Your task to perform on an android device: Search for vegetarian restaurants on Maps Image 0: 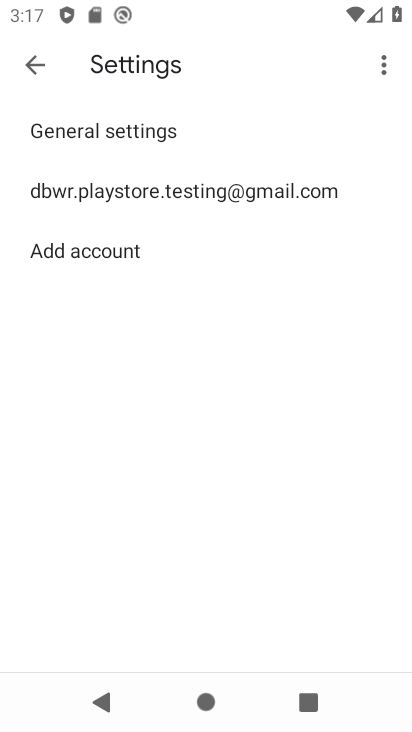
Step 0: press home button
Your task to perform on an android device: Search for vegetarian restaurants on Maps Image 1: 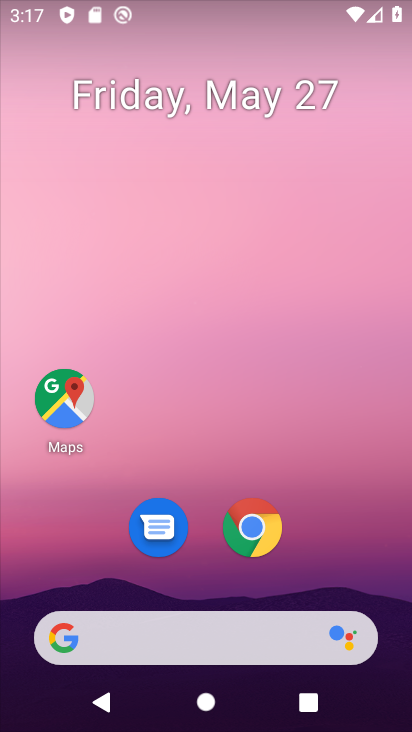
Step 1: click (57, 379)
Your task to perform on an android device: Search for vegetarian restaurants on Maps Image 2: 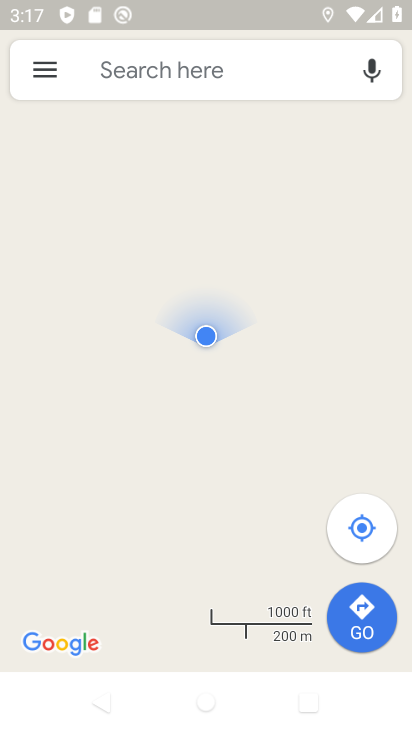
Step 2: click (122, 63)
Your task to perform on an android device: Search for vegetarian restaurants on Maps Image 3: 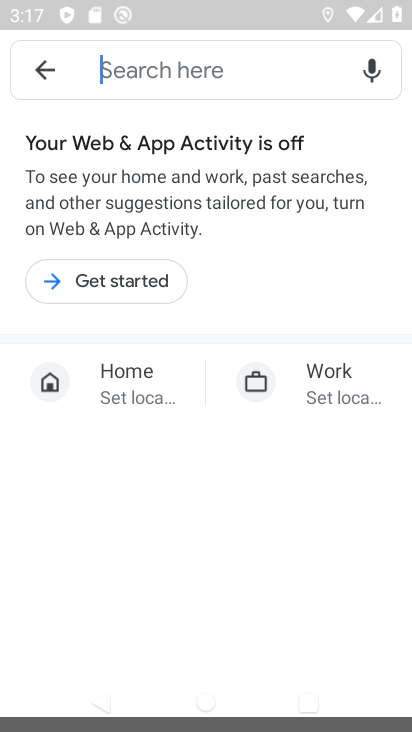
Step 3: click (122, 63)
Your task to perform on an android device: Search for vegetarian restaurants on Maps Image 4: 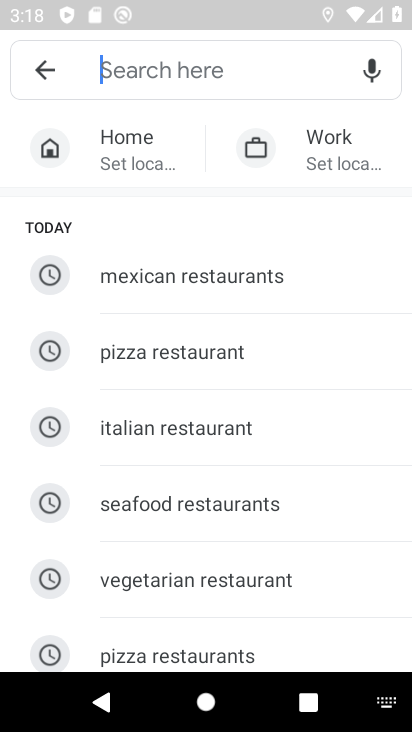
Step 4: type " vegetarian restaurants "
Your task to perform on an android device: Search for vegetarian restaurants on Maps Image 5: 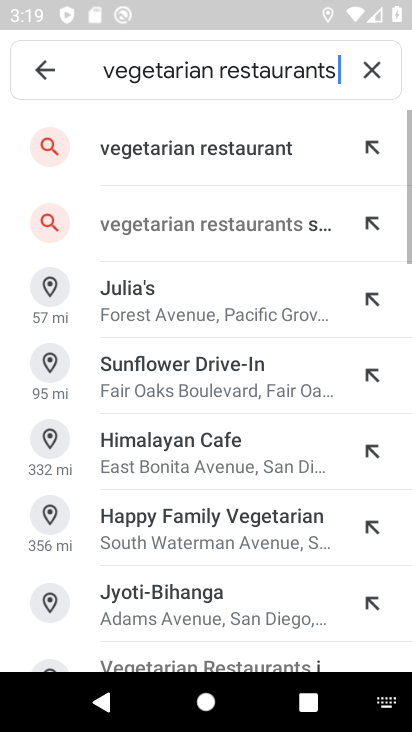
Step 5: click (172, 172)
Your task to perform on an android device: Search for vegetarian restaurants on Maps Image 6: 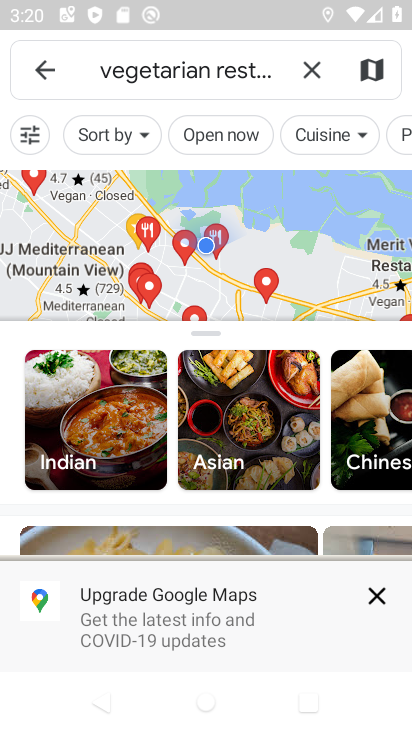
Step 6: task complete